Your task to perform on an android device: Open wifi settings Image 0: 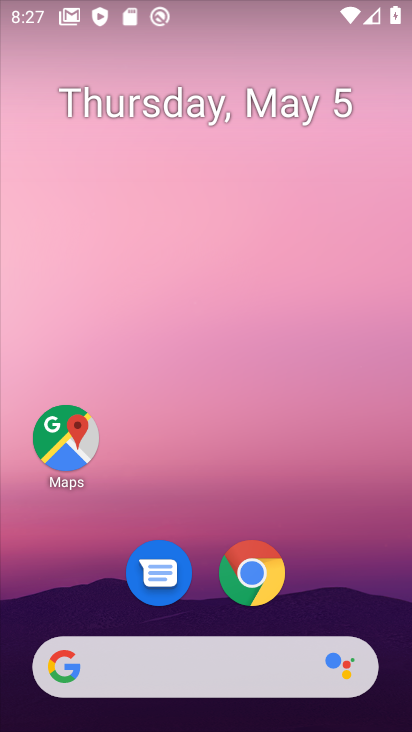
Step 0: drag from (204, 616) to (266, 180)
Your task to perform on an android device: Open wifi settings Image 1: 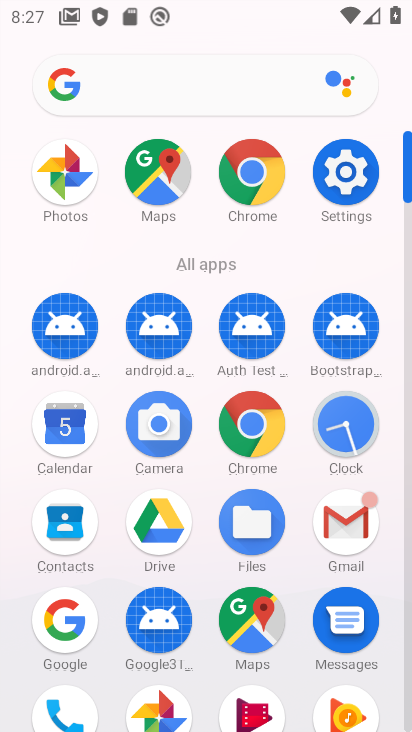
Step 1: click (346, 174)
Your task to perform on an android device: Open wifi settings Image 2: 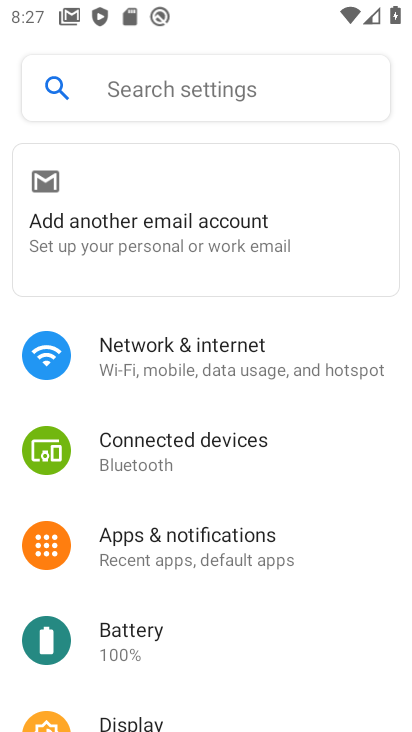
Step 2: click (283, 356)
Your task to perform on an android device: Open wifi settings Image 3: 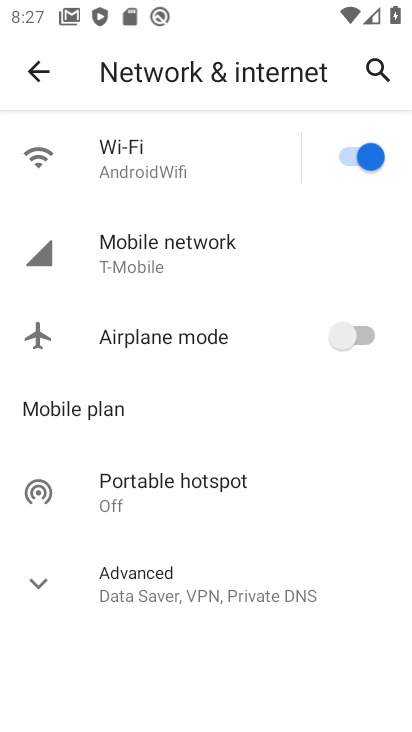
Step 3: click (163, 167)
Your task to perform on an android device: Open wifi settings Image 4: 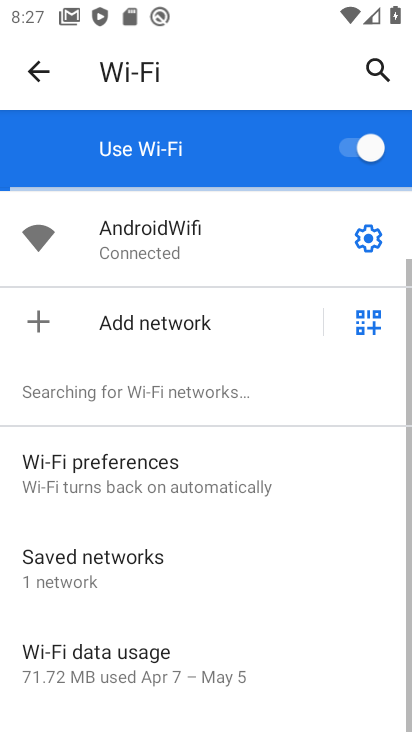
Step 4: task complete